Your task to perform on an android device: toggle wifi Image 0: 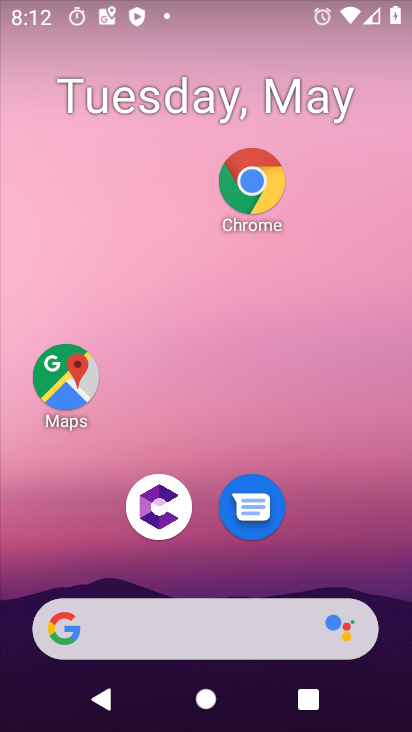
Step 0: drag from (322, 579) to (312, 132)
Your task to perform on an android device: toggle wifi Image 1: 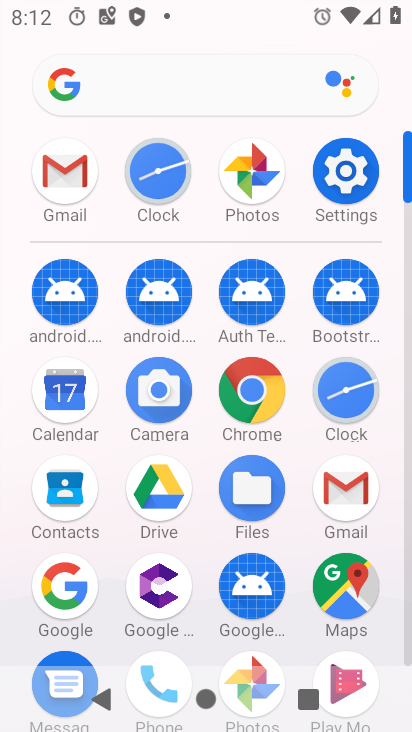
Step 1: click (341, 175)
Your task to perform on an android device: toggle wifi Image 2: 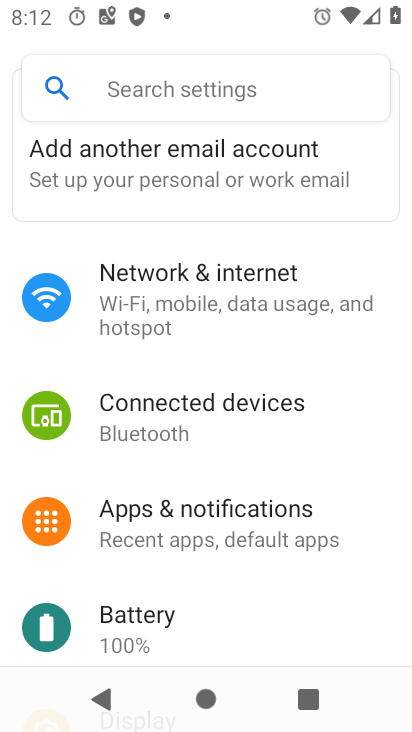
Step 2: click (205, 290)
Your task to perform on an android device: toggle wifi Image 3: 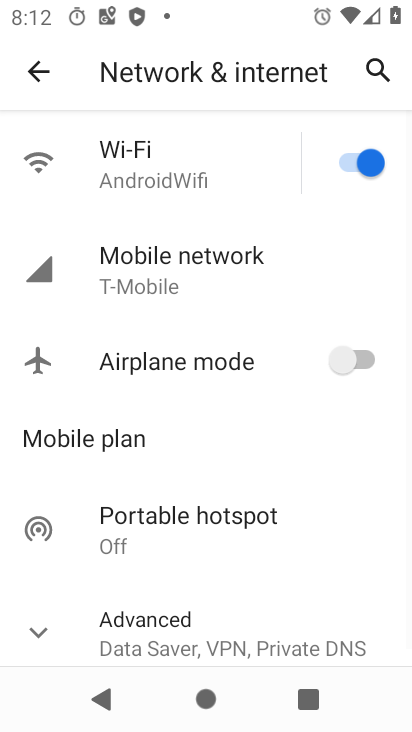
Step 3: click (358, 158)
Your task to perform on an android device: toggle wifi Image 4: 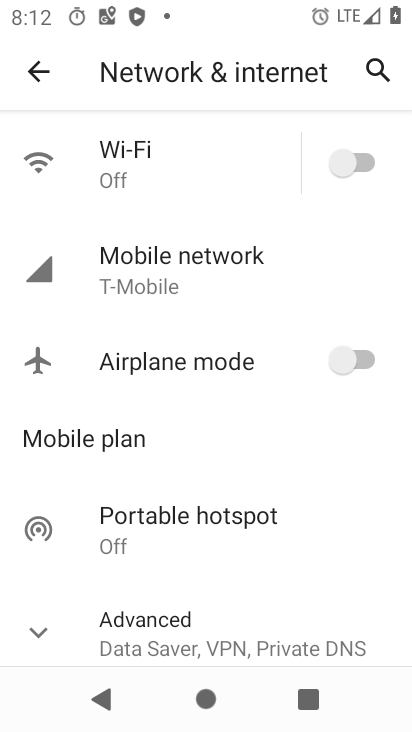
Step 4: task complete